Your task to perform on an android device: Search for pizza restaurants on Maps Image 0: 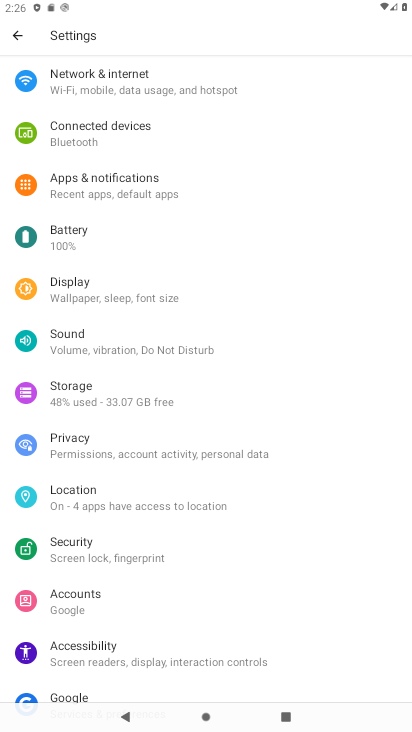
Step 0: press home button
Your task to perform on an android device: Search for pizza restaurants on Maps Image 1: 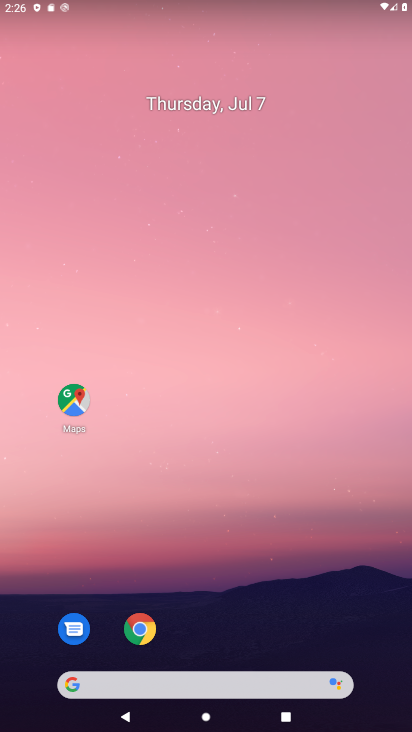
Step 1: click (85, 410)
Your task to perform on an android device: Search for pizza restaurants on Maps Image 2: 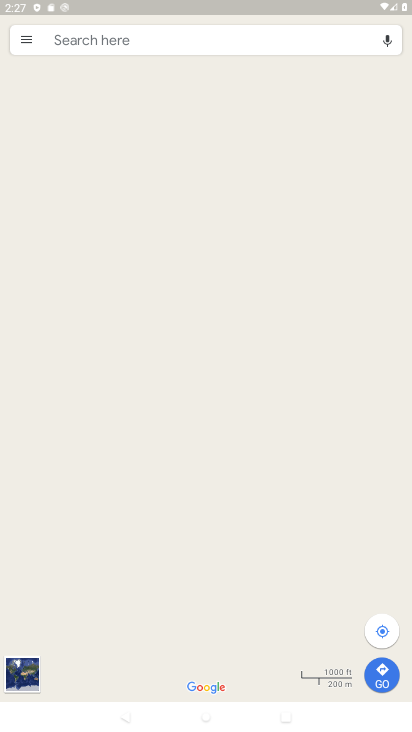
Step 2: click (154, 31)
Your task to perform on an android device: Search for pizza restaurants on Maps Image 3: 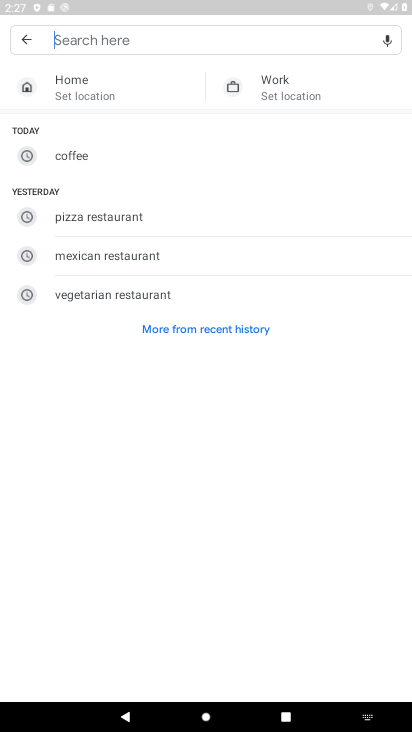
Step 3: click (104, 218)
Your task to perform on an android device: Search for pizza restaurants on Maps Image 4: 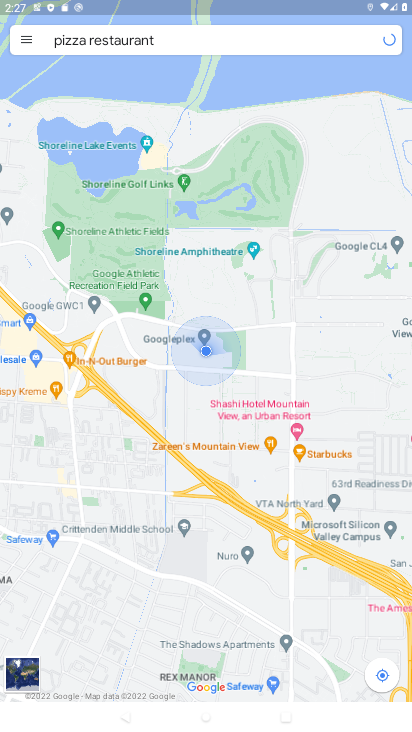
Step 4: task complete